Your task to perform on an android device: open chrome and create a bookmark for the current page Image 0: 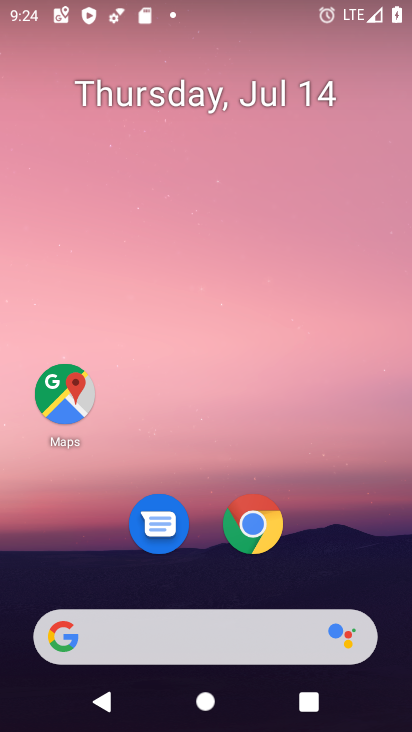
Step 0: click (260, 533)
Your task to perform on an android device: open chrome and create a bookmark for the current page Image 1: 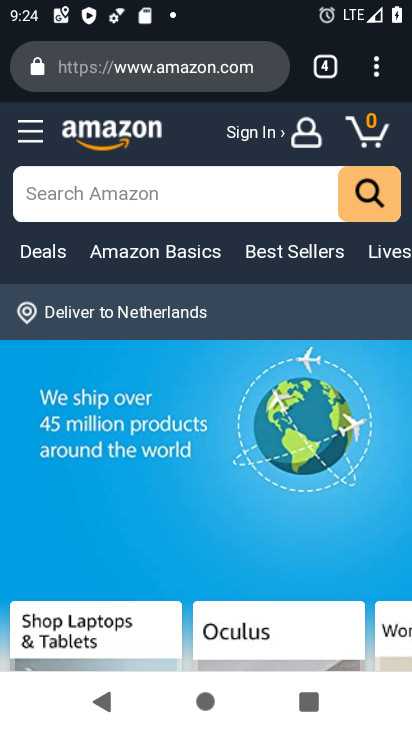
Step 1: click (377, 72)
Your task to perform on an android device: open chrome and create a bookmark for the current page Image 2: 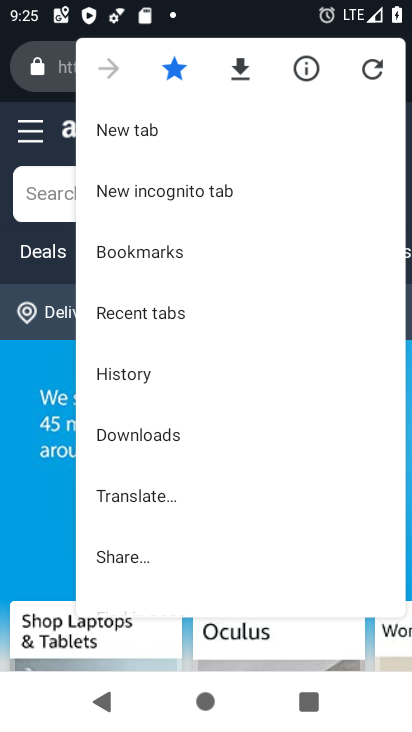
Step 2: task complete